Your task to perform on an android device: change notifications settings Image 0: 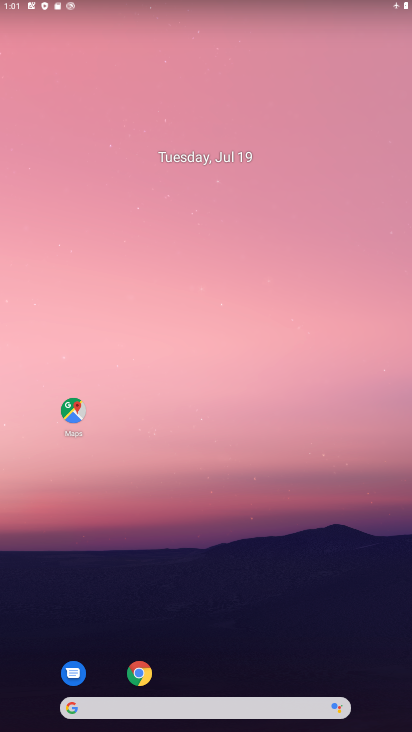
Step 0: drag from (245, 637) to (168, 304)
Your task to perform on an android device: change notifications settings Image 1: 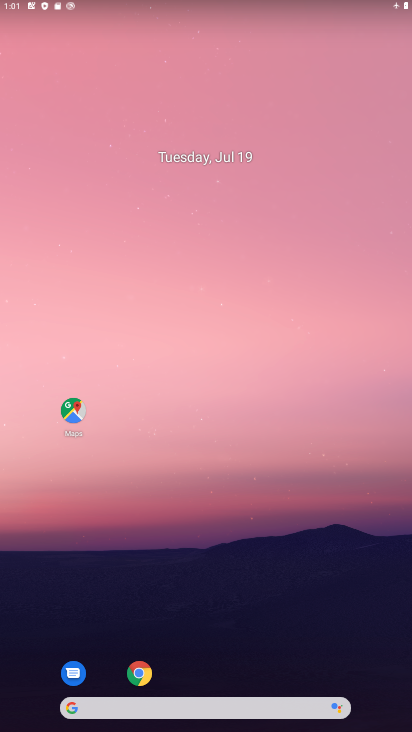
Step 1: drag from (312, 573) to (249, 351)
Your task to perform on an android device: change notifications settings Image 2: 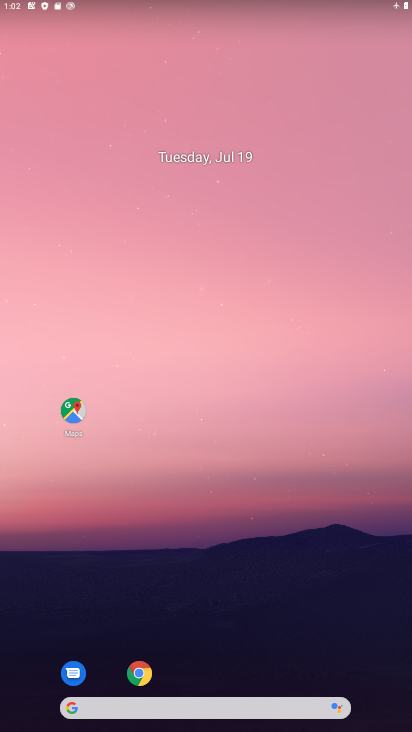
Step 2: click (98, 141)
Your task to perform on an android device: change notifications settings Image 3: 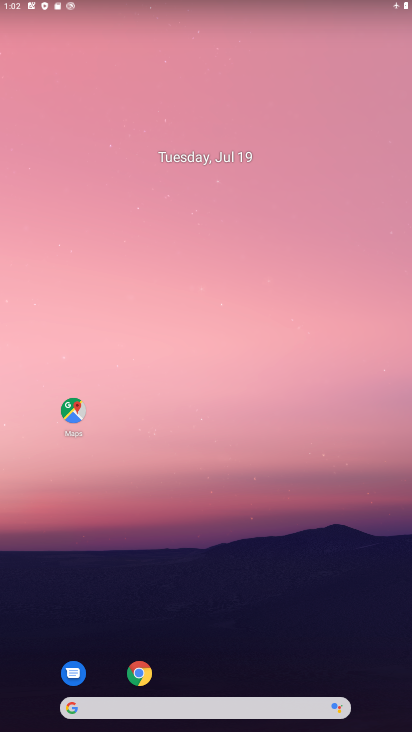
Step 3: click (140, 189)
Your task to perform on an android device: change notifications settings Image 4: 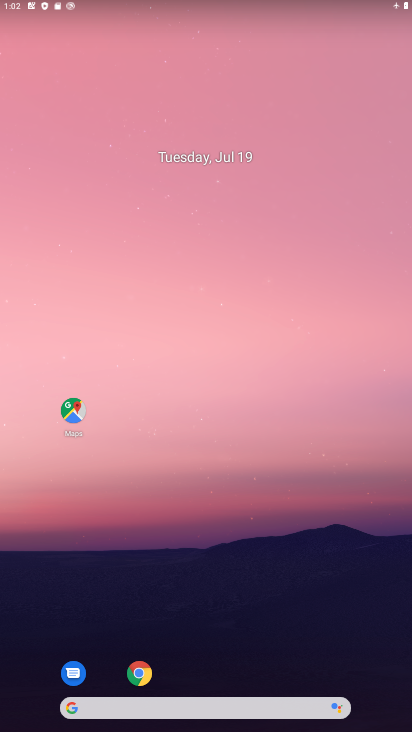
Step 4: click (223, 159)
Your task to perform on an android device: change notifications settings Image 5: 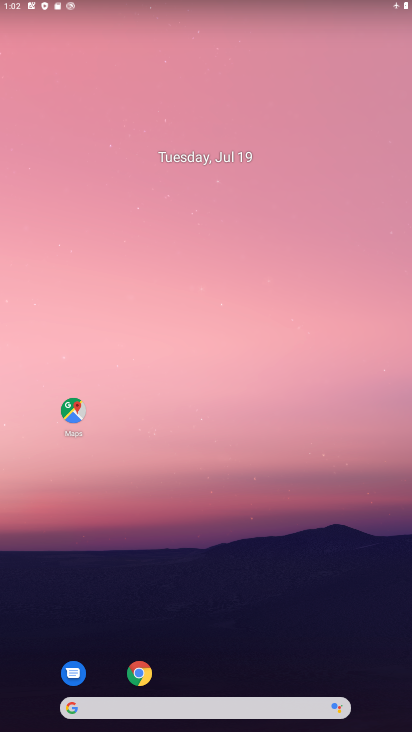
Step 5: drag from (252, 356) to (225, 128)
Your task to perform on an android device: change notifications settings Image 6: 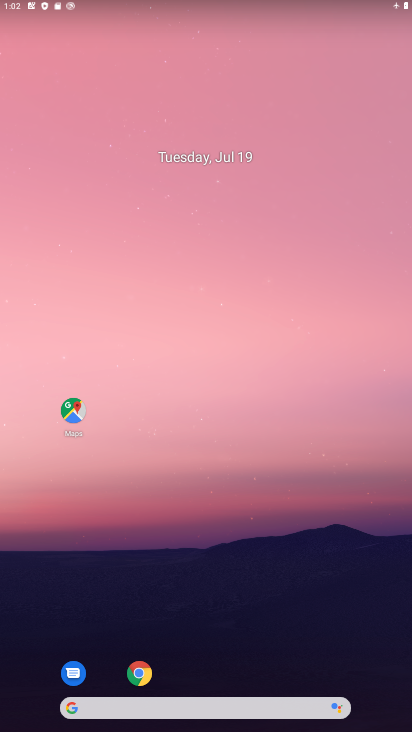
Step 6: click (178, 186)
Your task to perform on an android device: change notifications settings Image 7: 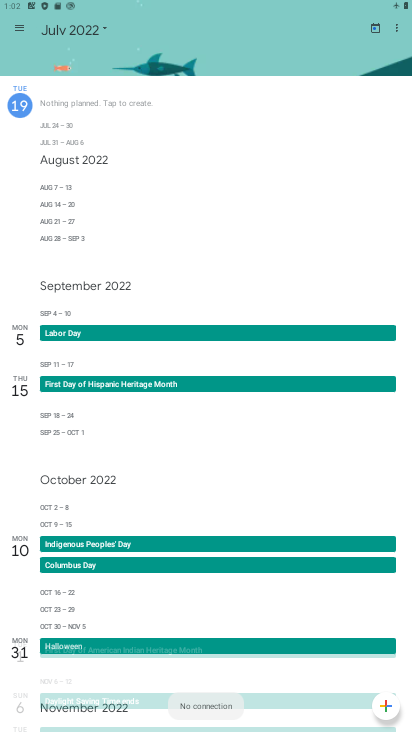
Step 7: drag from (196, 374) to (138, 19)
Your task to perform on an android device: change notifications settings Image 8: 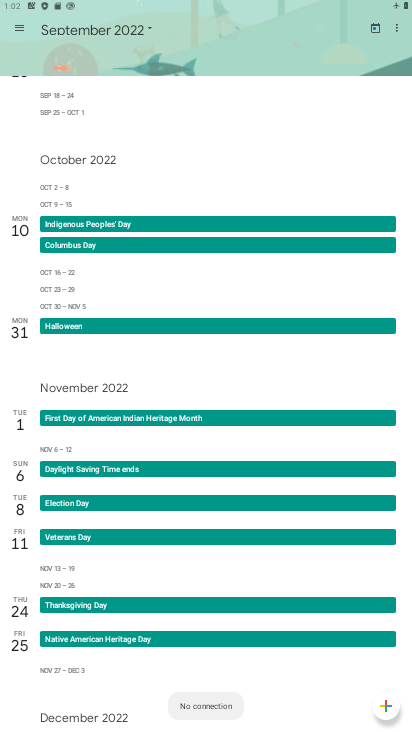
Step 8: drag from (179, 333) to (144, 180)
Your task to perform on an android device: change notifications settings Image 9: 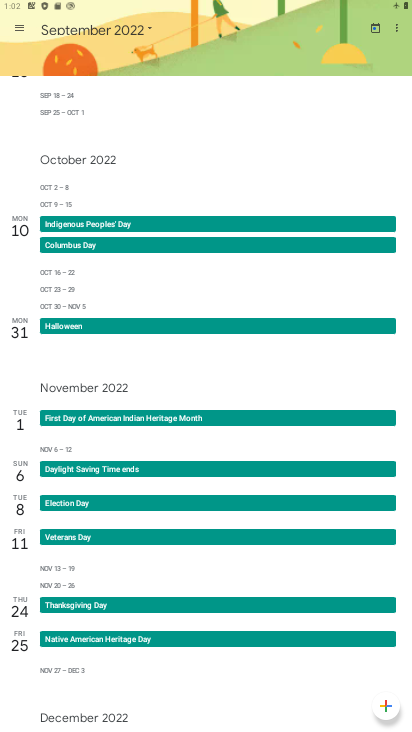
Step 9: press back button
Your task to perform on an android device: change notifications settings Image 10: 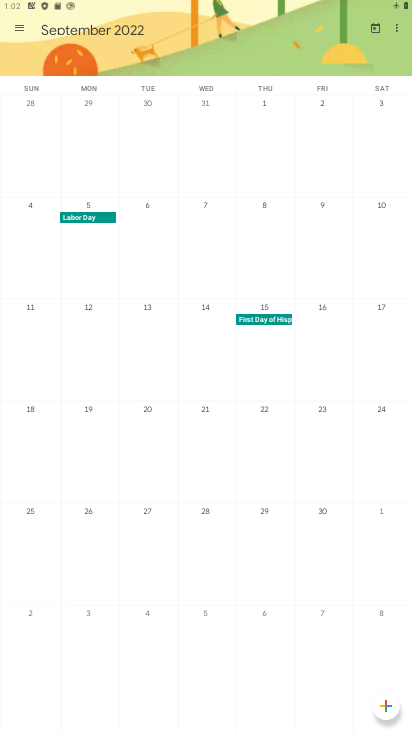
Step 10: press back button
Your task to perform on an android device: change notifications settings Image 11: 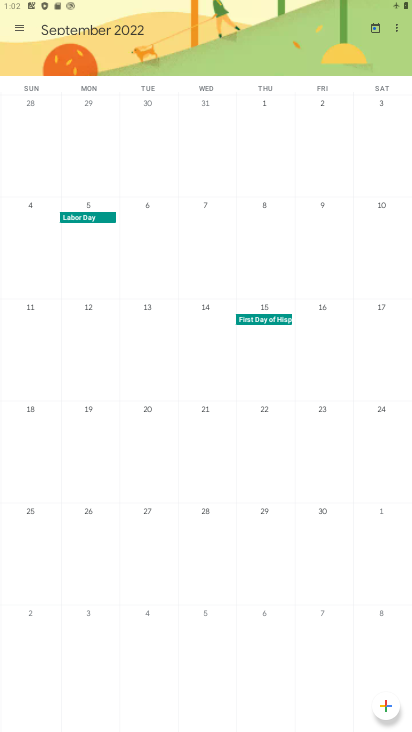
Step 11: press back button
Your task to perform on an android device: change notifications settings Image 12: 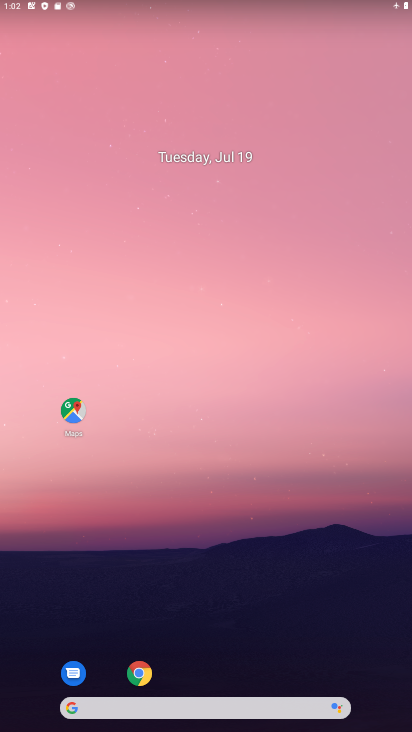
Step 12: drag from (233, 535) to (149, 104)
Your task to perform on an android device: change notifications settings Image 13: 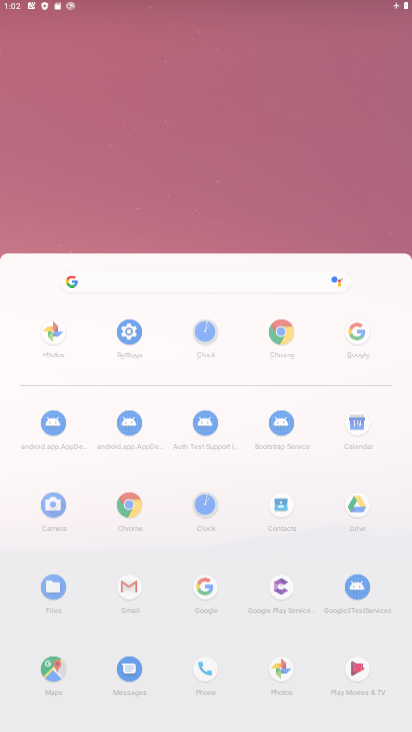
Step 13: drag from (173, 332) to (167, 237)
Your task to perform on an android device: change notifications settings Image 14: 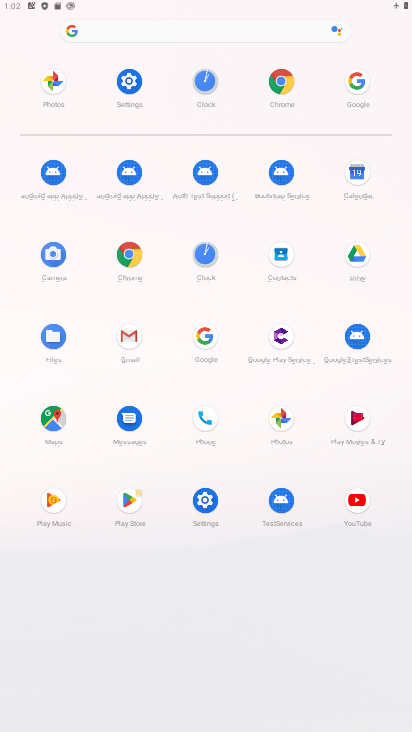
Step 14: drag from (203, 607) to (121, 224)
Your task to perform on an android device: change notifications settings Image 15: 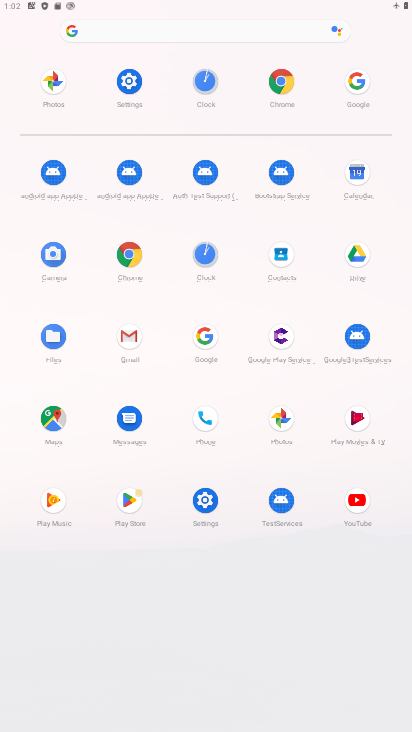
Step 15: click (202, 502)
Your task to perform on an android device: change notifications settings Image 16: 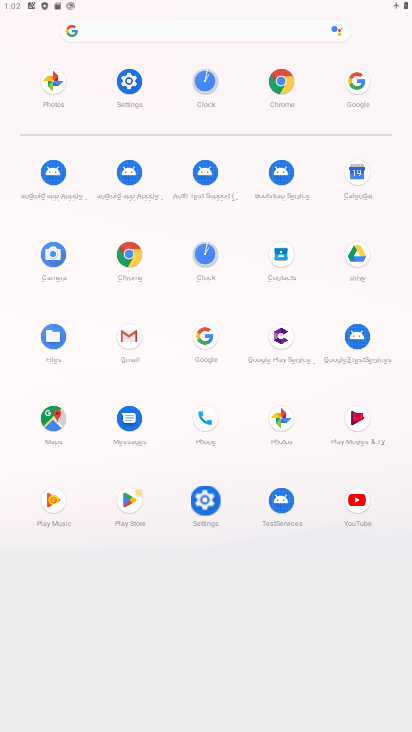
Step 16: click (207, 500)
Your task to perform on an android device: change notifications settings Image 17: 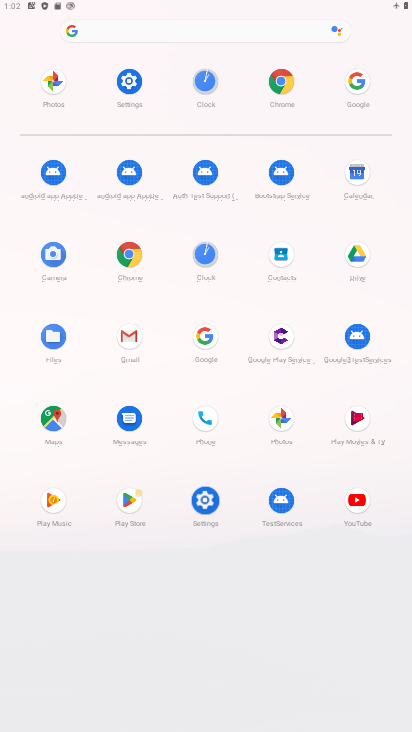
Step 17: click (204, 495)
Your task to perform on an android device: change notifications settings Image 18: 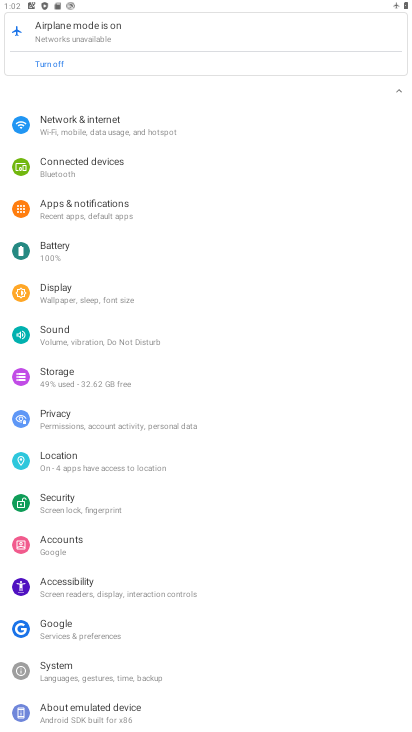
Step 18: click (60, 200)
Your task to perform on an android device: change notifications settings Image 19: 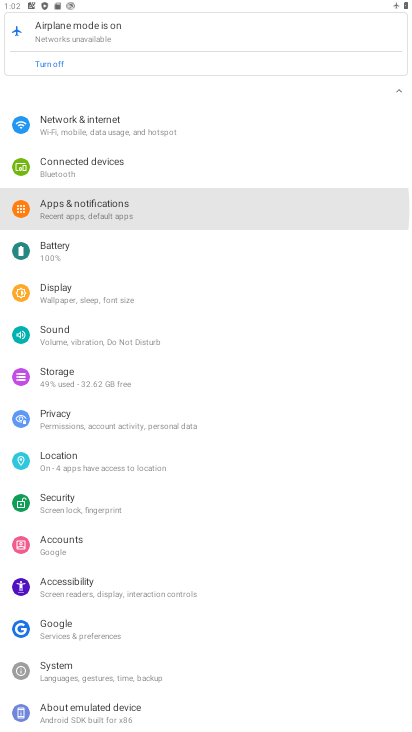
Step 19: click (60, 200)
Your task to perform on an android device: change notifications settings Image 20: 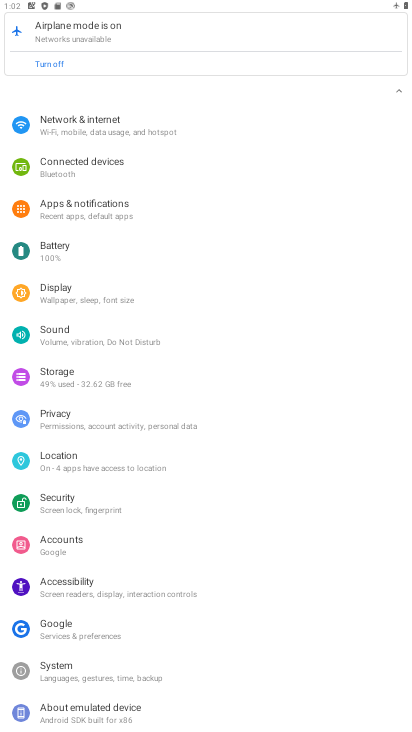
Step 20: click (60, 200)
Your task to perform on an android device: change notifications settings Image 21: 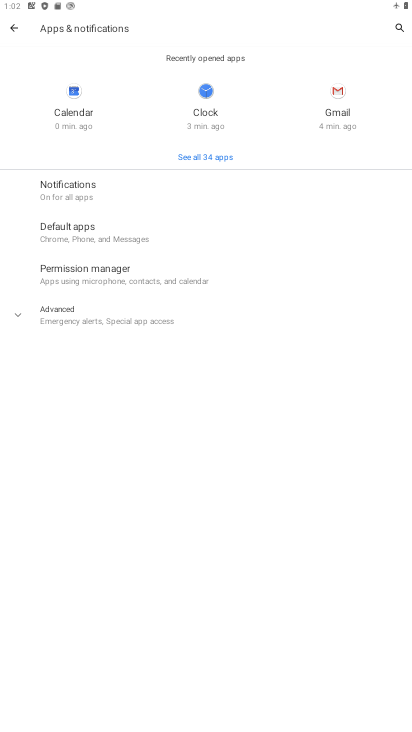
Step 21: click (45, 184)
Your task to perform on an android device: change notifications settings Image 22: 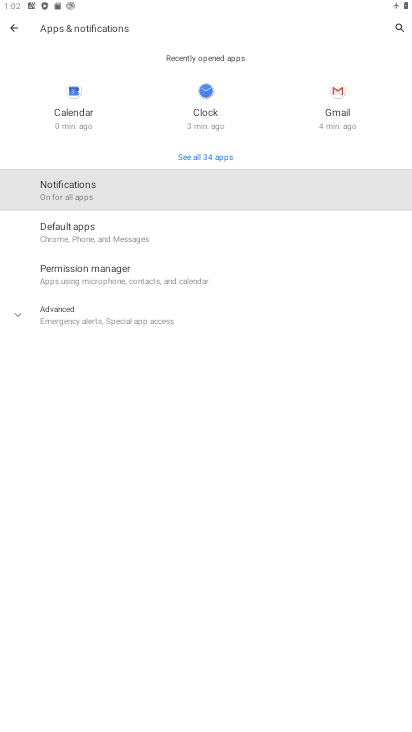
Step 22: click (45, 184)
Your task to perform on an android device: change notifications settings Image 23: 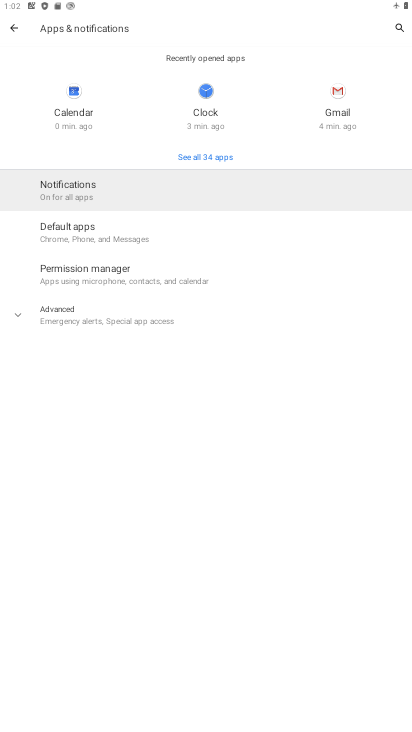
Step 23: click (54, 194)
Your task to perform on an android device: change notifications settings Image 24: 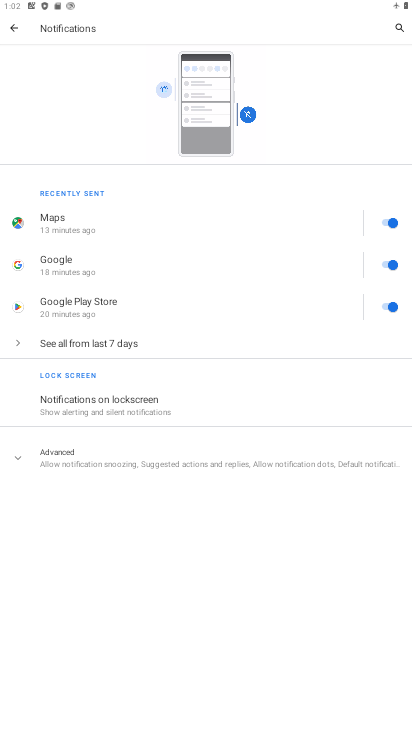
Step 24: click (56, 195)
Your task to perform on an android device: change notifications settings Image 25: 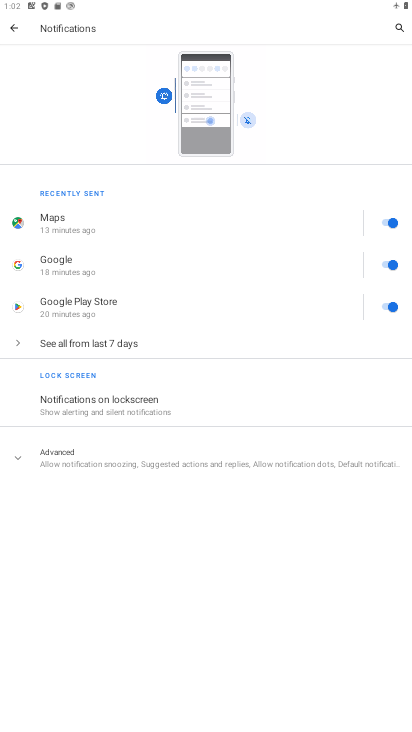
Step 25: click (387, 223)
Your task to perform on an android device: change notifications settings Image 26: 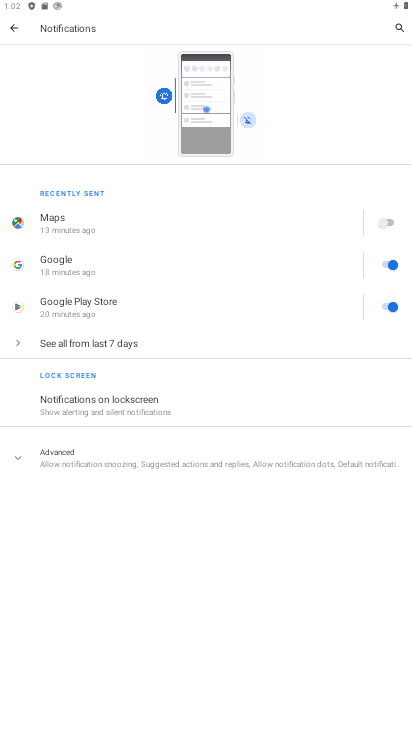
Step 26: click (389, 261)
Your task to perform on an android device: change notifications settings Image 27: 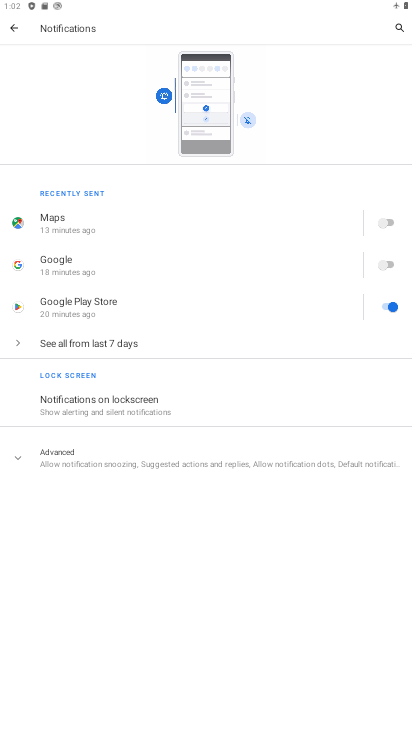
Step 27: click (392, 288)
Your task to perform on an android device: change notifications settings Image 28: 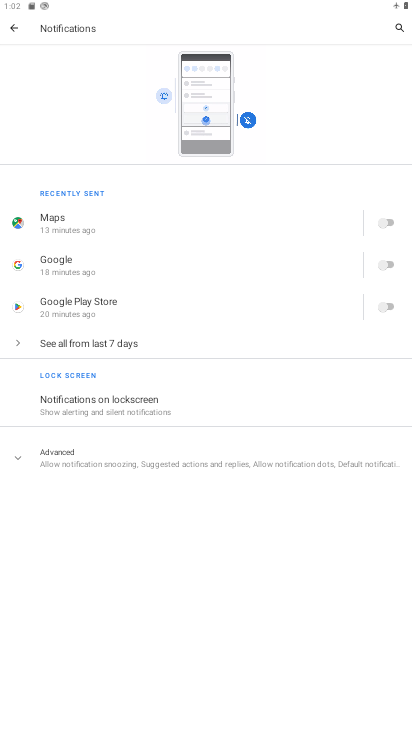
Step 28: click (391, 311)
Your task to perform on an android device: change notifications settings Image 29: 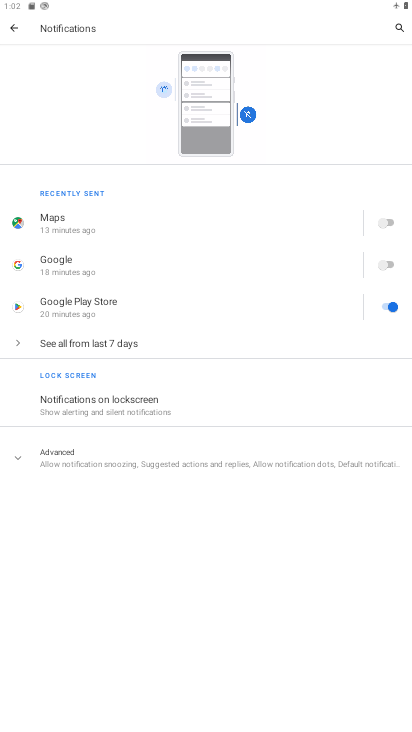
Step 29: click (400, 304)
Your task to perform on an android device: change notifications settings Image 30: 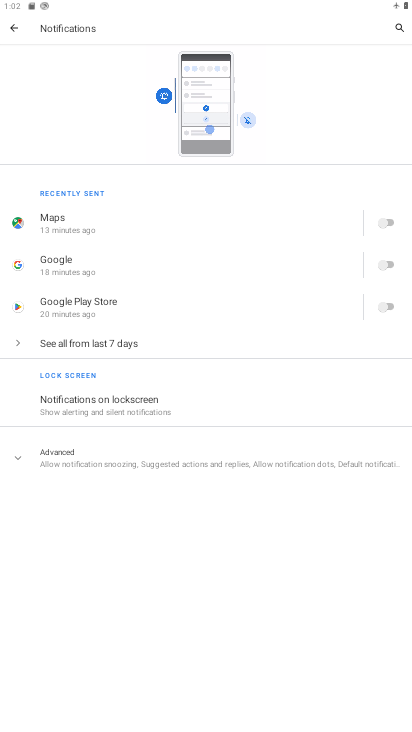
Step 30: click (99, 455)
Your task to perform on an android device: change notifications settings Image 31: 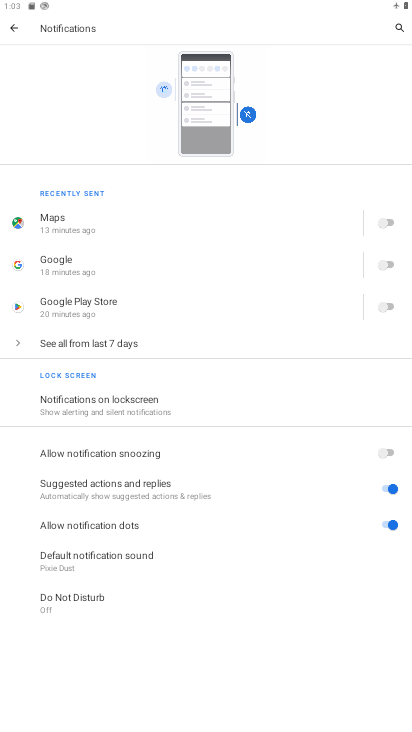
Step 31: click (389, 513)
Your task to perform on an android device: change notifications settings Image 32: 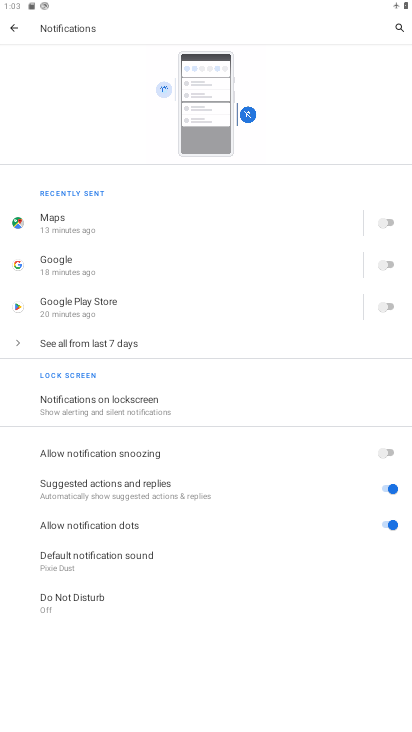
Step 32: click (391, 520)
Your task to perform on an android device: change notifications settings Image 33: 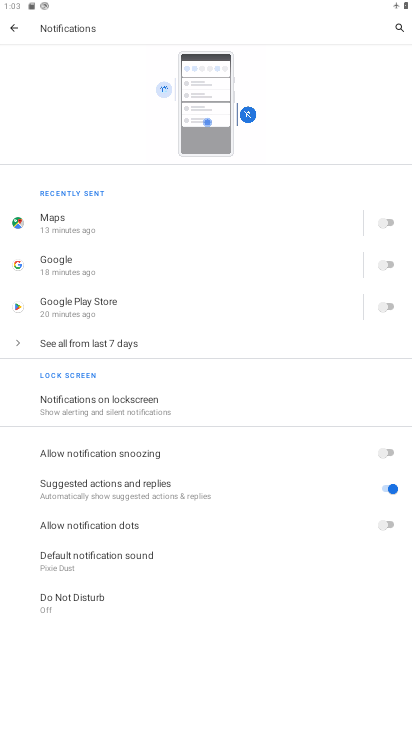
Step 33: click (392, 486)
Your task to perform on an android device: change notifications settings Image 34: 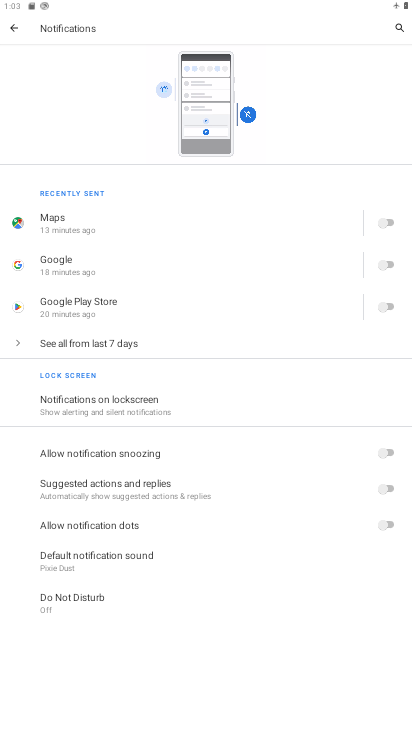
Step 34: click (390, 485)
Your task to perform on an android device: change notifications settings Image 35: 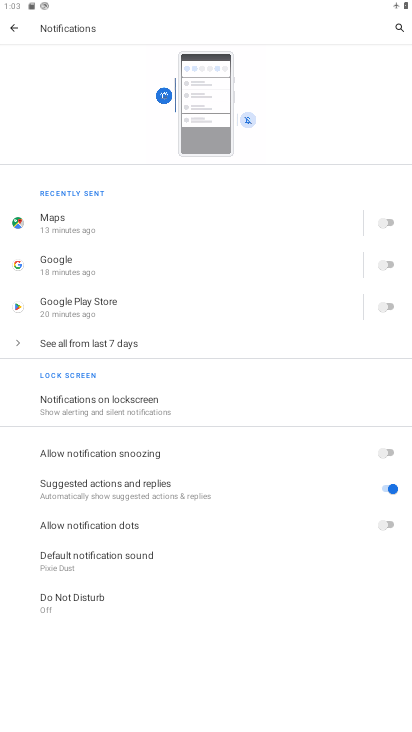
Step 35: click (396, 481)
Your task to perform on an android device: change notifications settings Image 36: 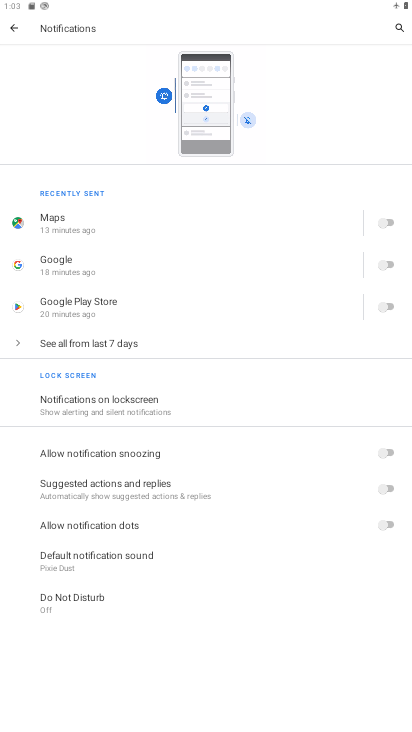
Step 36: task complete